Your task to perform on an android device: Open Reddit.com Image 0: 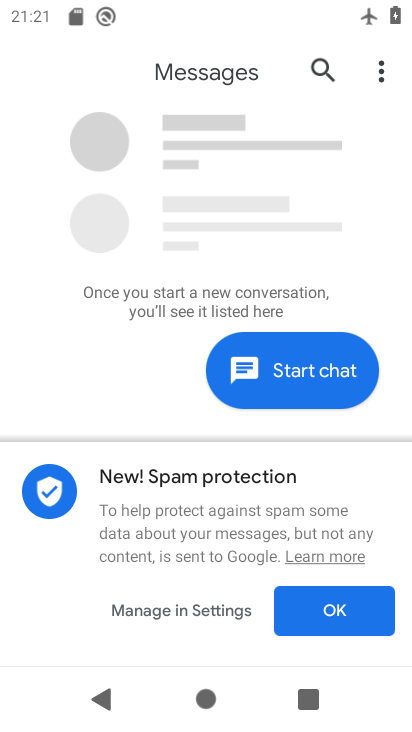
Step 0: press home button
Your task to perform on an android device: Open Reddit.com Image 1: 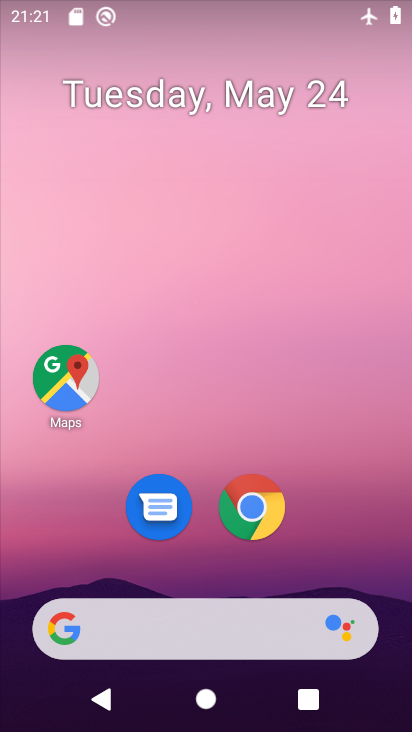
Step 1: drag from (211, 563) to (204, 77)
Your task to perform on an android device: Open Reddit.com Image 2: 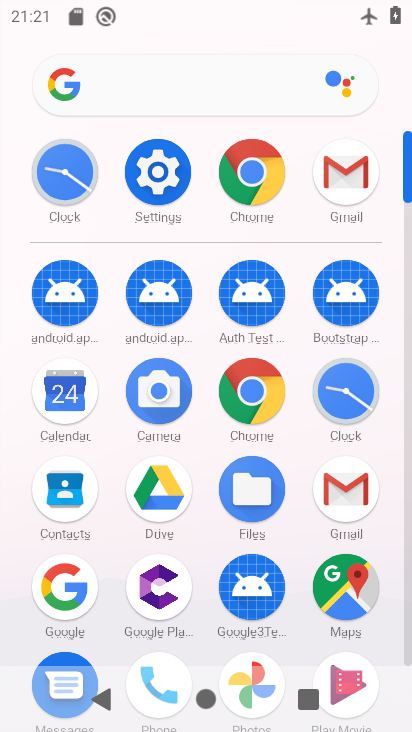
Step 2: click (128, 92)
Your task to perform on an android device: Open Reddit.com Image 3: 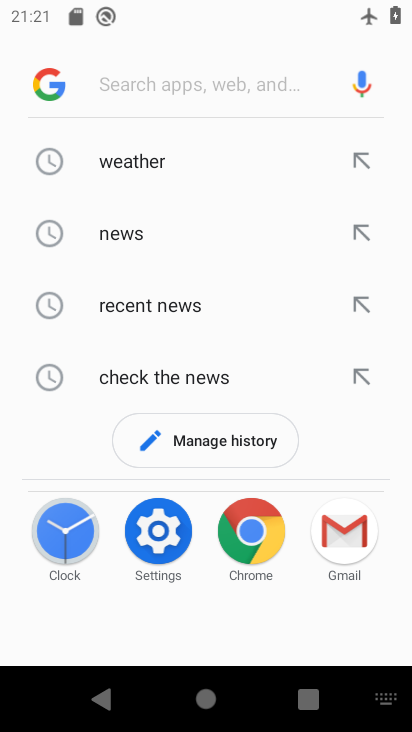
Step 3: type "reddit.com"
Your task to perform on an android device: Open Reddit.com Image 4: 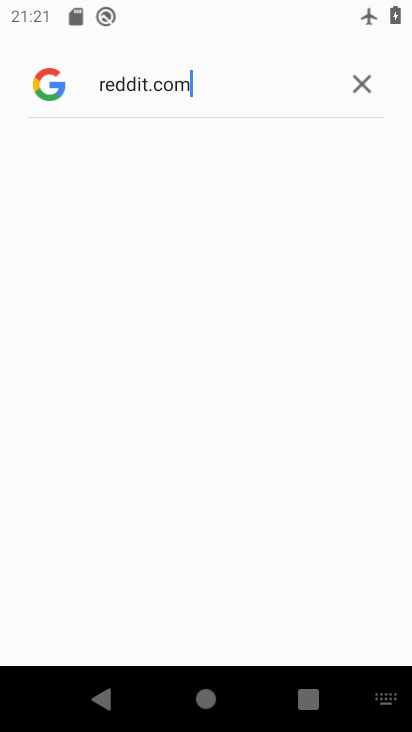
Step 4: task complete